Your task to perform on an android device: turn off wifi Image 0: 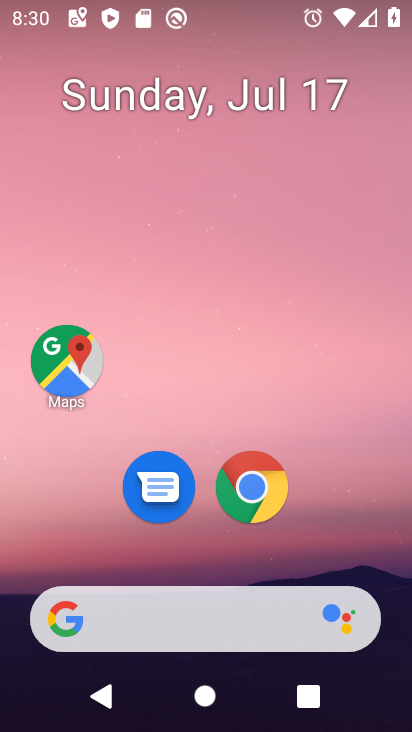
Step 0: drag from (191, 12) to (200, 655)
Your task to perform on an android device: turn off wifi Image 1: 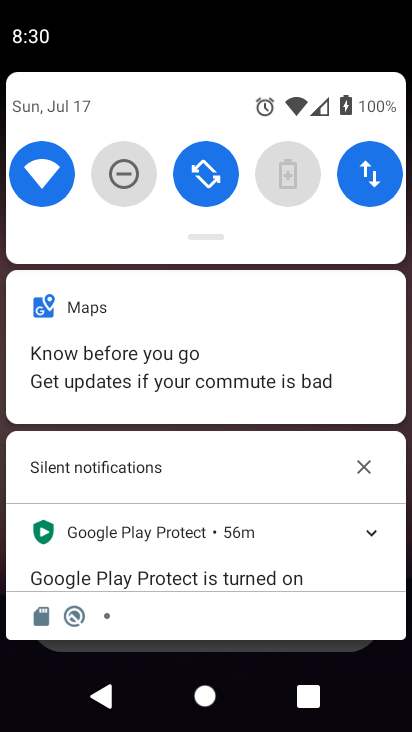
Step 1: click (44, 165)
Your task to perform on an android device: turn off wifi Image 2: 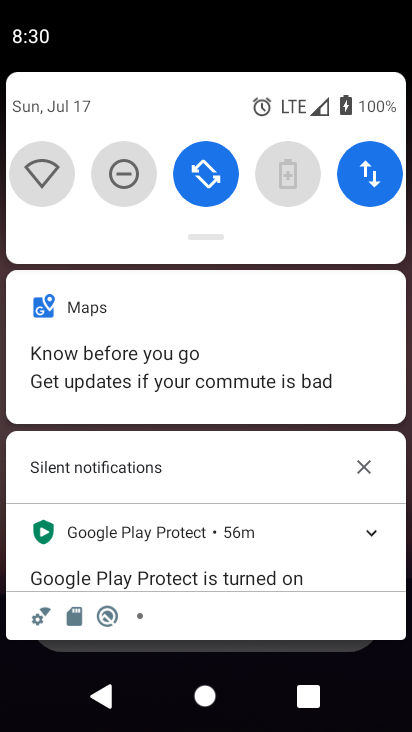
Step 2: task complete